Your task to perform on an android device: What's the weather today? Image 0: 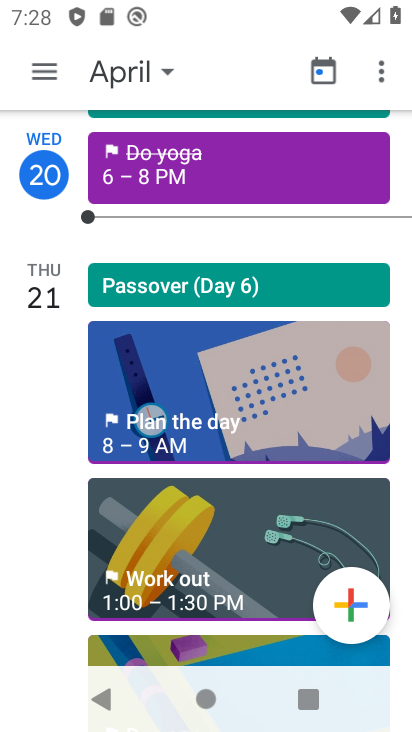
Step 0: press home button
Your task to perform on an android device: What's the weather today? Image 1: 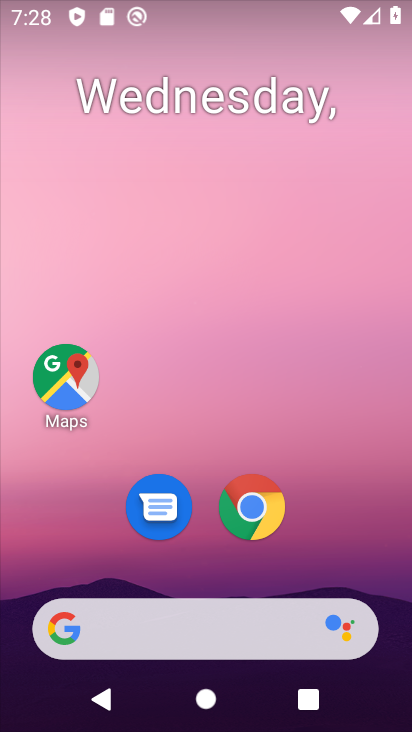
Step 1: drag from (242, 668) to (256, 191)
Your task to perform on an android device: What's the weather today? Image 2: 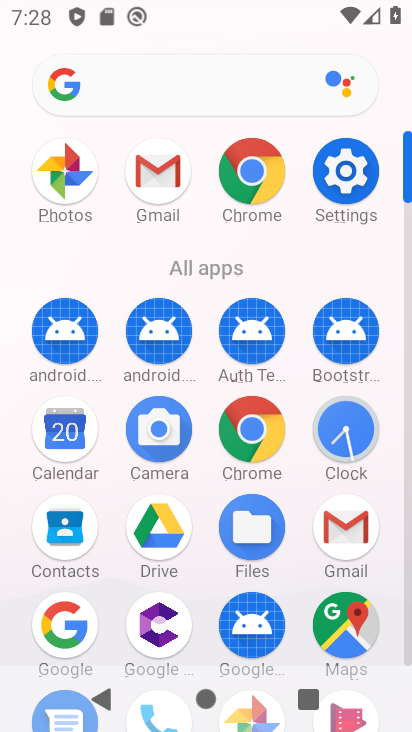
Step 2: click (152, 90)
Your task to perform on an android device: What's the weather today? Image 3: 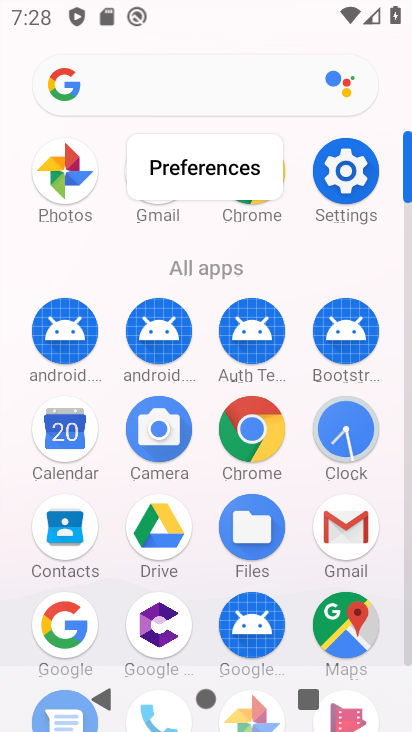
Step 3: click (160, 88)
Your task to perform on an android device: What's the weather today? Image 4: 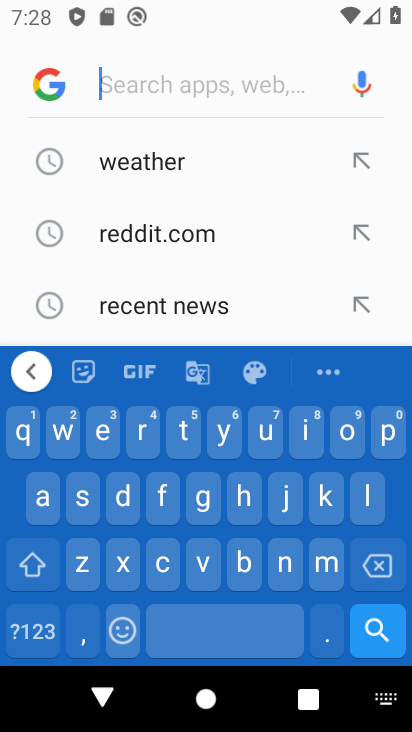
Step 4: click (148, 165)
Your task to perform on an android device: What's the weather today? Image 5: 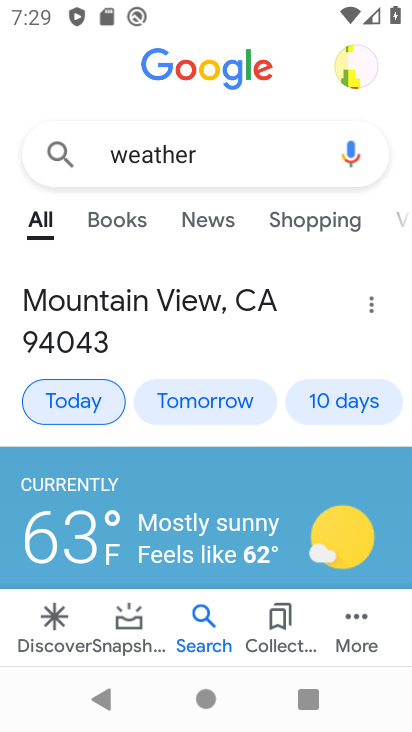
Step 5: task complete